Your task to perform on an android device: turn off data saver in the chrome app Image 0: 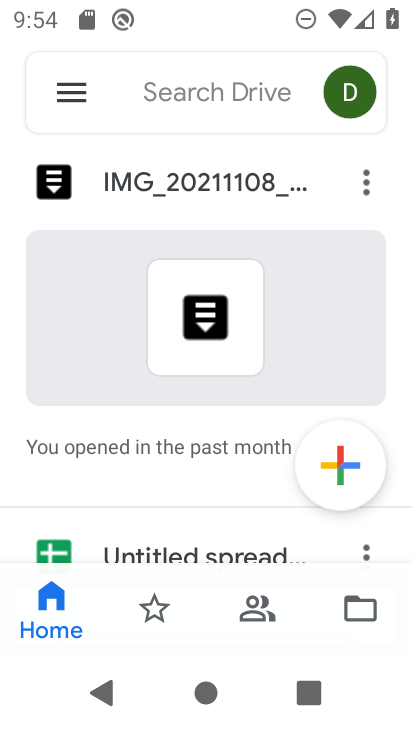
Step 0: press home button
Your task to perform on an android device: turn off data saver in the chrome app Image 1: 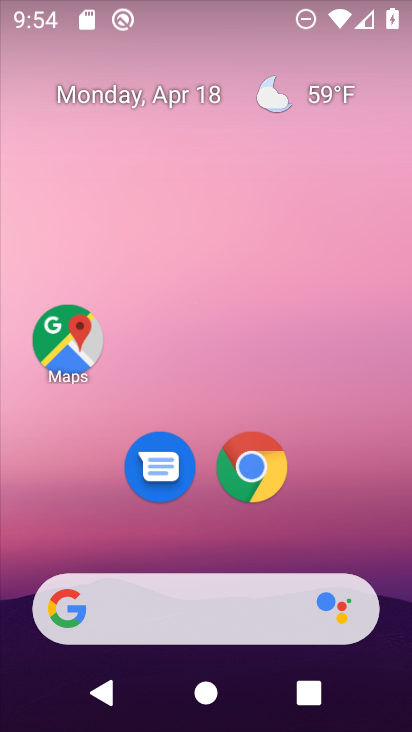
Step 1: click (260, 463)
Your task to perform on an android device: turn off data saver in the chrome app Image 2: 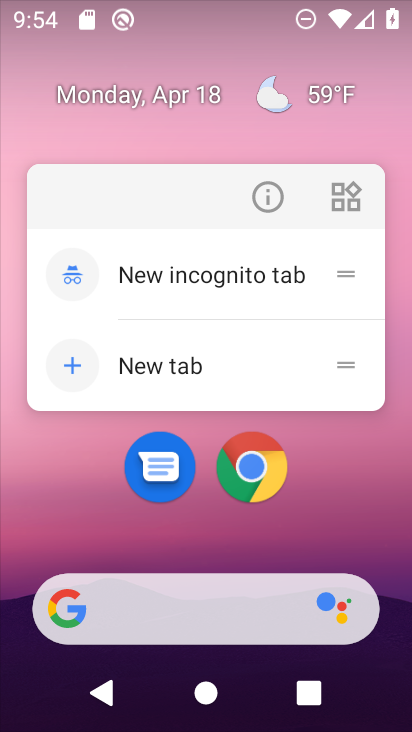
Step 2: click (259, 459)
Your task to perform on an android device: turn off data saver in the chrome app Image 3: 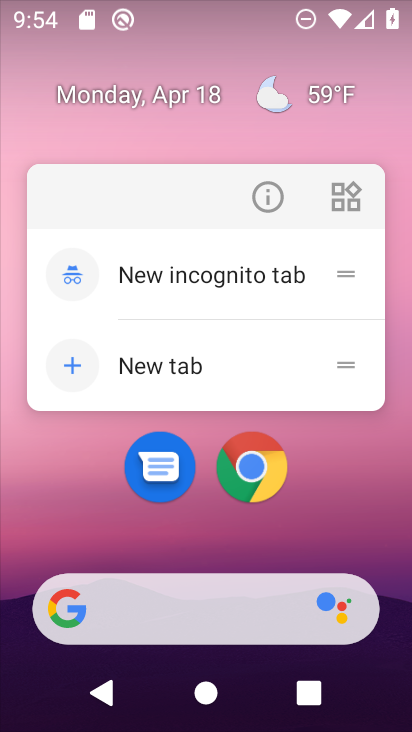
Step 3: click (253, 466)
Your task to perform on an android device: turn off data saver in the chrome app Image 4: 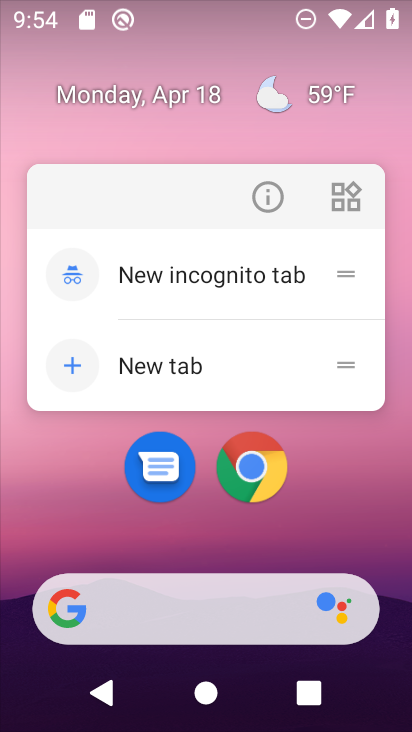
Step 4: click (252, 466)
Your task to perform on an android device: turn off data saver in the chrome app Image 5: 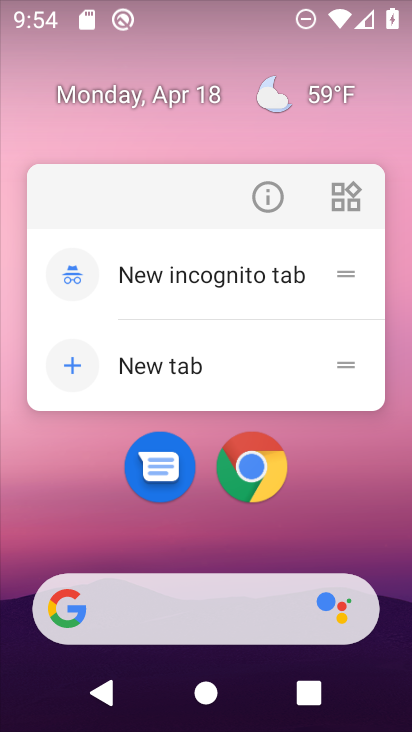
Step 5: click (254, 450)
Your task to perform on an android device: turn off data saver in the chrome app Image 6: 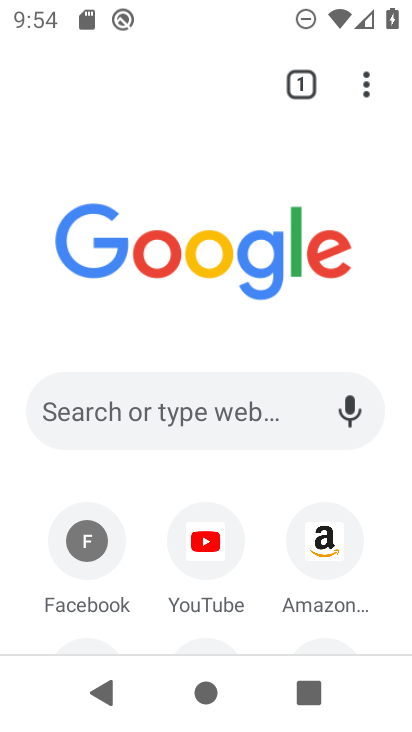
Step 6: click (364, 73)
Your task to perform on an android device: turn off data saver in the chrome app Image 7: 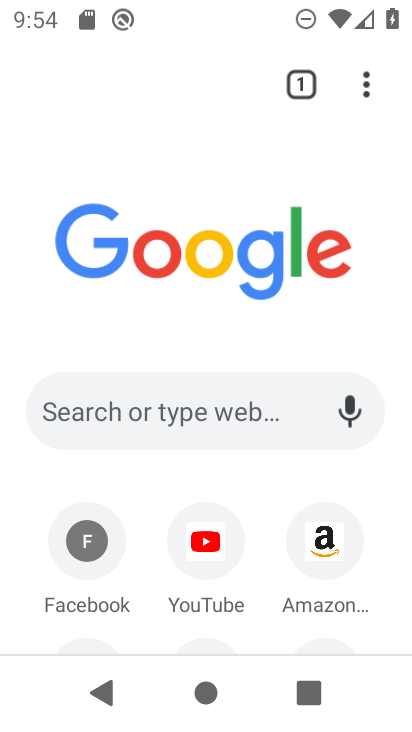
Step 7: drag from (365, 75) to (140, 513)
Your task to perform on an android device: turn off data saver in the chrome app Image 8: 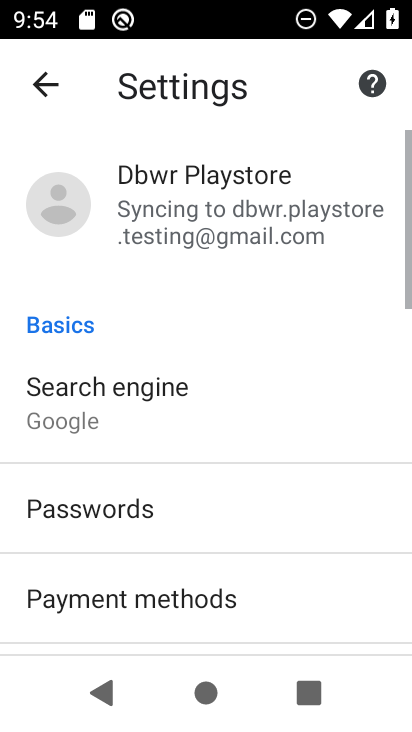
Step 8: drag from (130, 574) to (225, 102)
Your task to perform on an android device: turn off data saver in the chrome app Image 9: 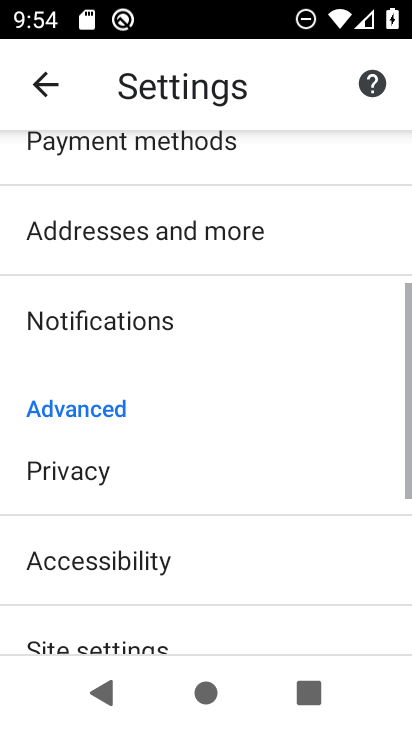
Step 9: drag from (163, 583) to (201, 311)
Your task to perform on an android device: turn off data saver in the chrome app Image 10: 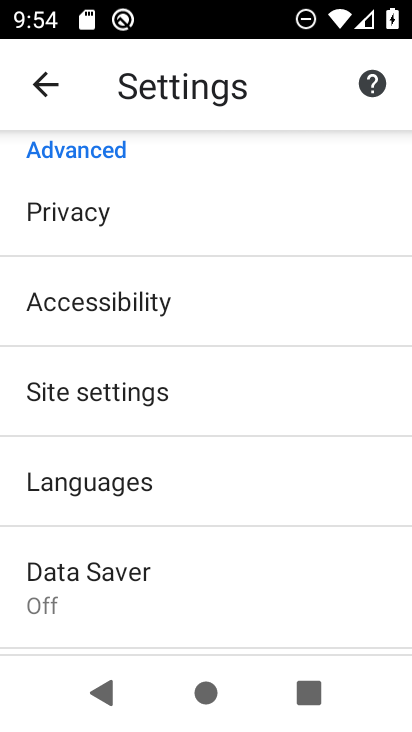
Step 10: click (93, 574)
Your task to perform on an android device: turn off data saver in the chrome app Image 11: 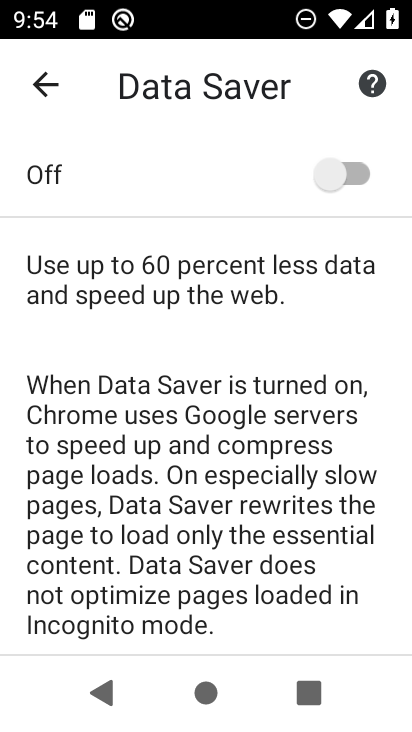
Step 11: task complete